Your task to perform on an android device: see creations saved in the google photos Image 0: 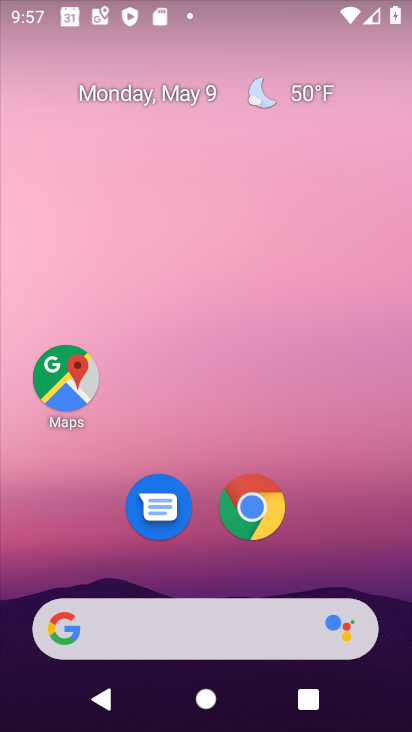
Step 0: drag from (329, 545) to (253, 114)
Your task to perform on an android device: see creations saved in the google photos Image 1: 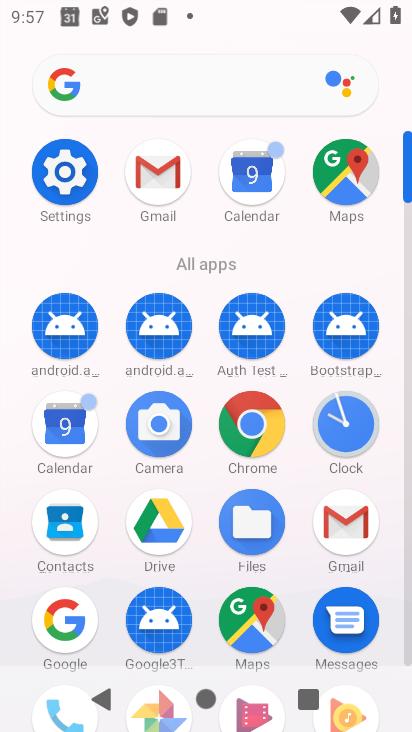
Step 1: drag from (208, 591) to (183, 416)
Your task to perform on an android device: see creations saved in the google photos Image 2: 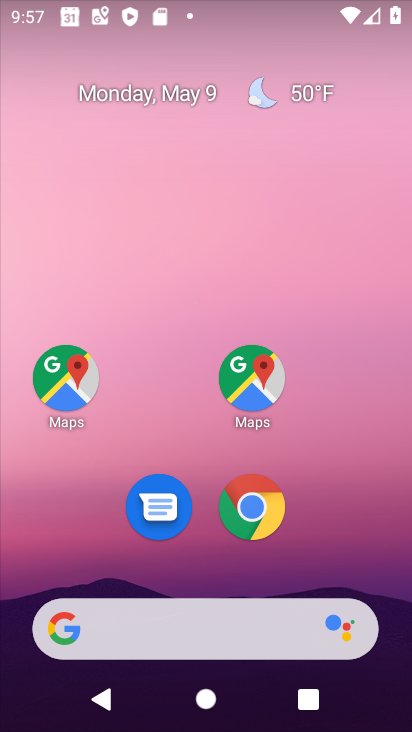
Step 2: drag from (319, 453) to (290, 60)
Your task to perform on an android device: see creations saved in the google photos Image 3: 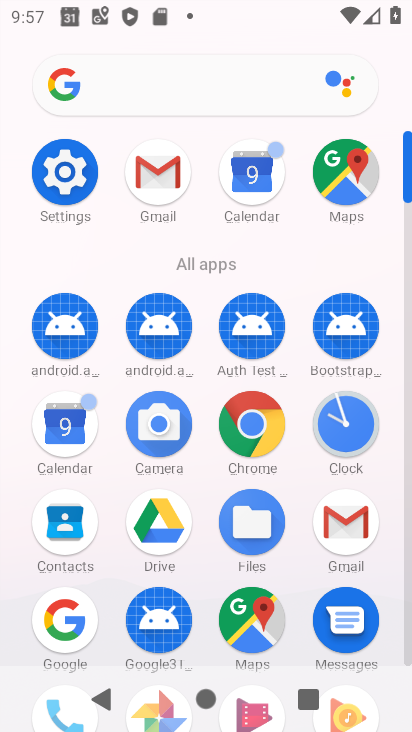
Step 3: drag from (198, 285) to (211, 170)
Your task to perform on an android device: see creations saved in the google photos Image 4: 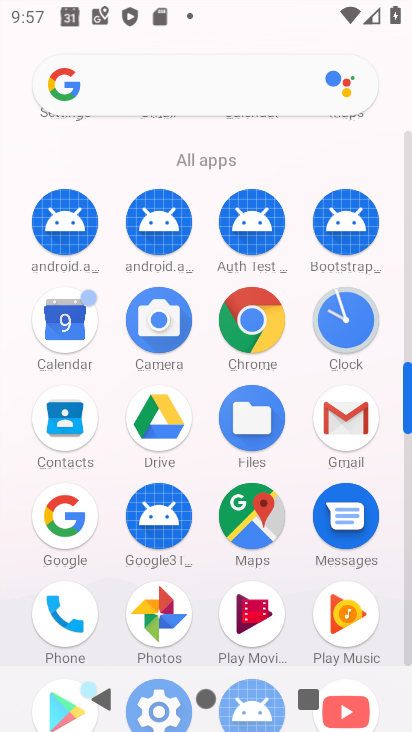
Step 4: click (165, 625)
Your task to perform on an android device: see creations saved in the google photos Image 5: 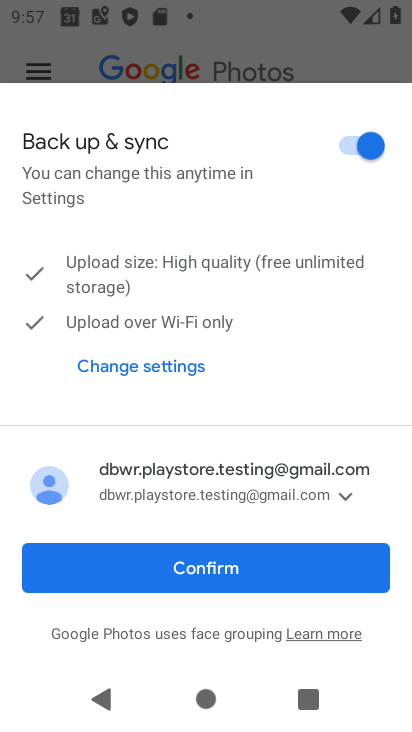
Step 5: click (186, 573)
Your task to perform on an android device: see creations saved in the google photos Image 6: 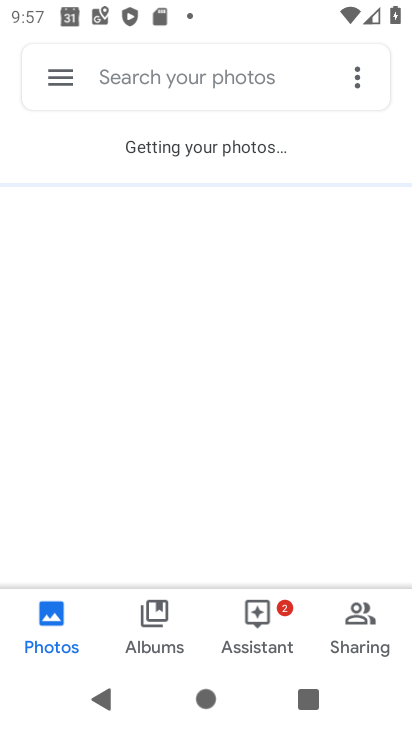
Step 6: click (201, 81)
Your task to perform on an android device: see creations saved in the google photos Image 7: 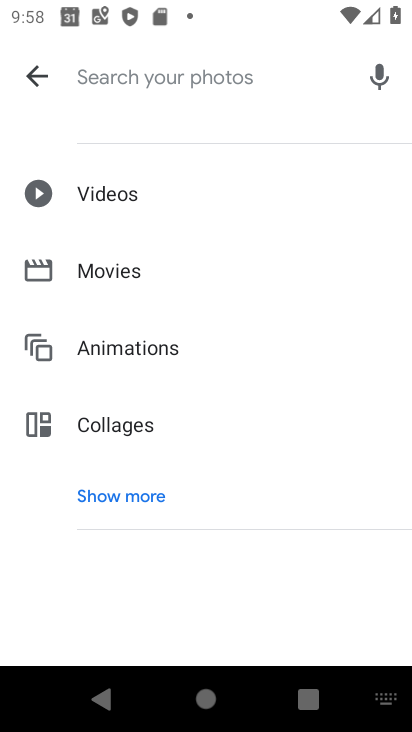
Step 7: click (157, 499)
Your task to perform on an android device: see creations saved in the google photos Image 8: 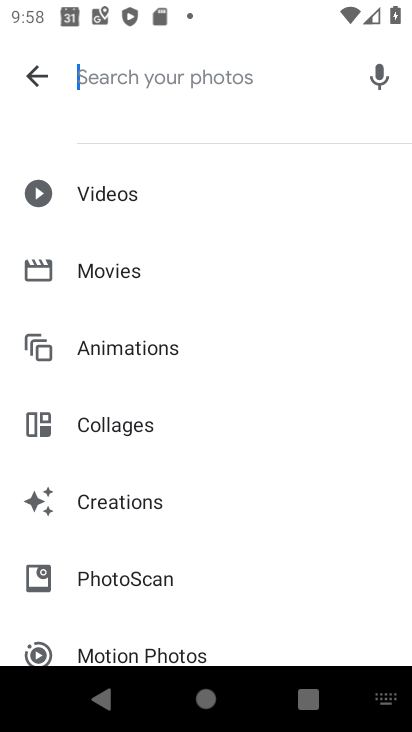
Step 8: click (142, 510)
Your task to perform on an android device: see creations saved in the google photos Image 9: 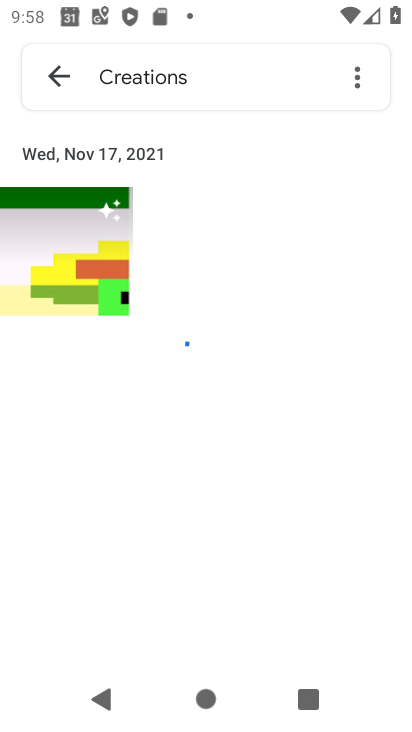
Step 9: task complete